Your task to perform on an android device: Go to Google maps Image 0: 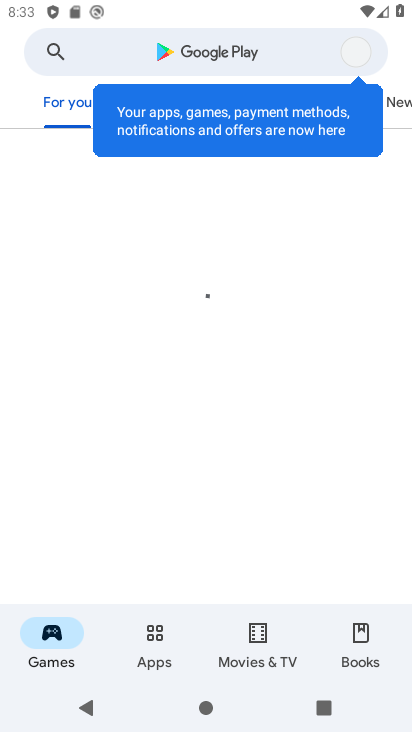
Step 0: press home button
Your task to perform on an android device: Go to Google maps Image 1: 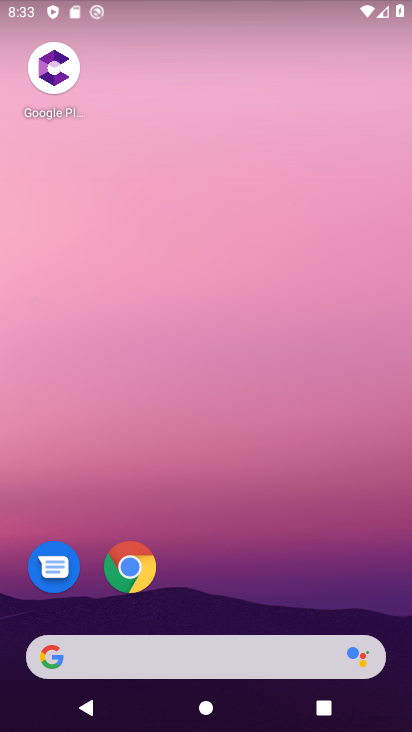
Step 1: drag from (221, 598) to (196, 189)
Your task to perform on an android device: Go to Google maps Image 2: 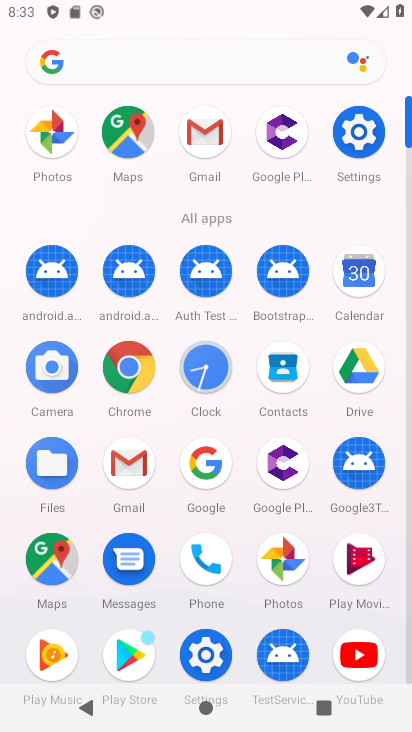
Step 2: click (138, 135)
Your task to perform on an android device: Go to Google maps Image 3: 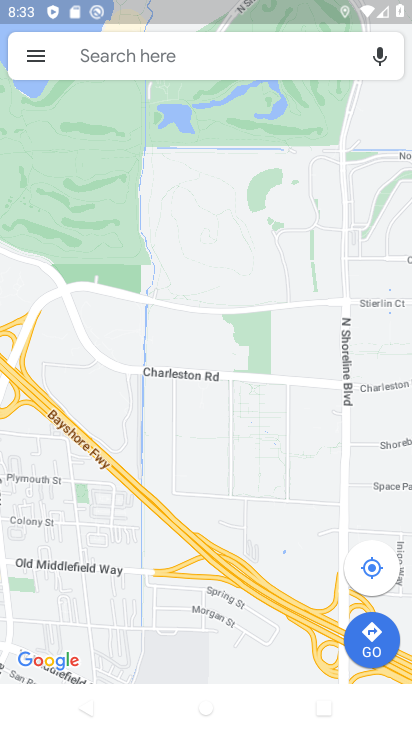
Step 3: task complete